Your task to perform on an android device: Open battery settings Image 0: 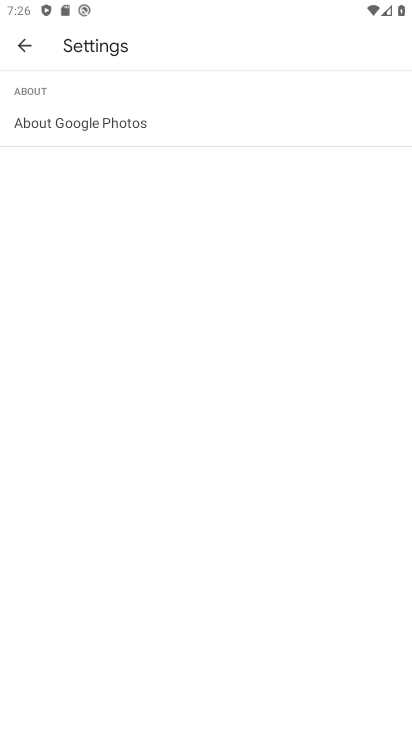
Step 0: press home button
Your task to perform on an android device: Open battery settings Image 1: 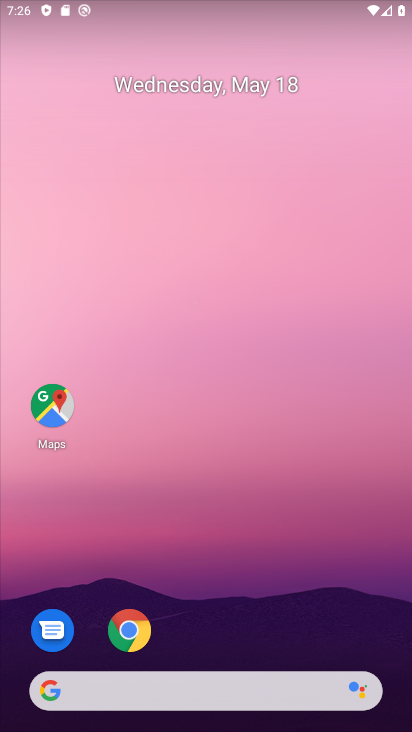
Step 1: drag from (264, 516) to (167, 91)
Your task to perform on an android device: Open battery settings Image 2: 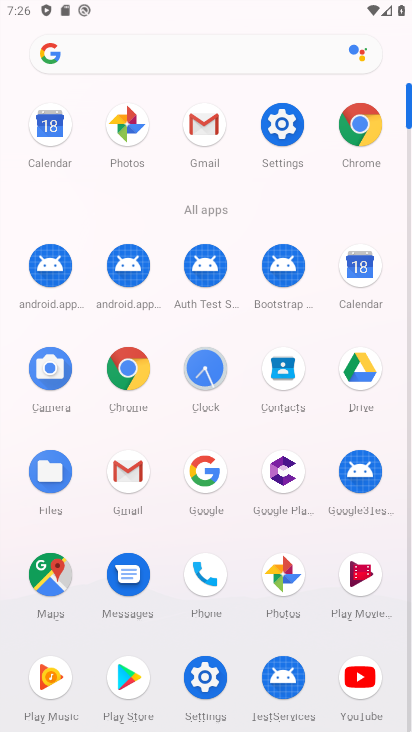
Step 2: click (279, 125)
Your task to perform on an android device: Open battery settings Image 3: 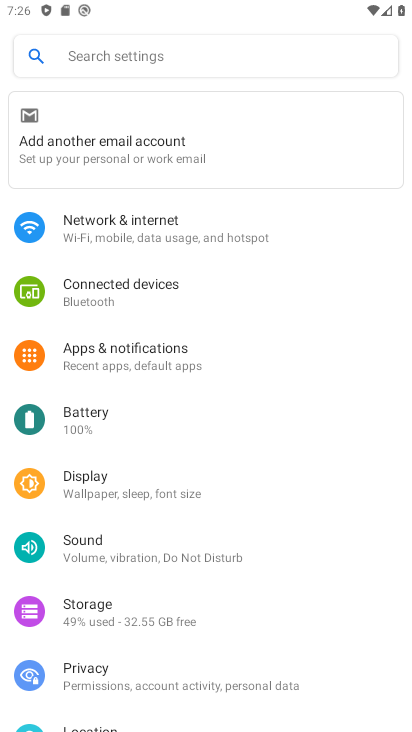
Step 3: click (91, 408)
Your task to perform on an android device: Open battery settings Image 4: 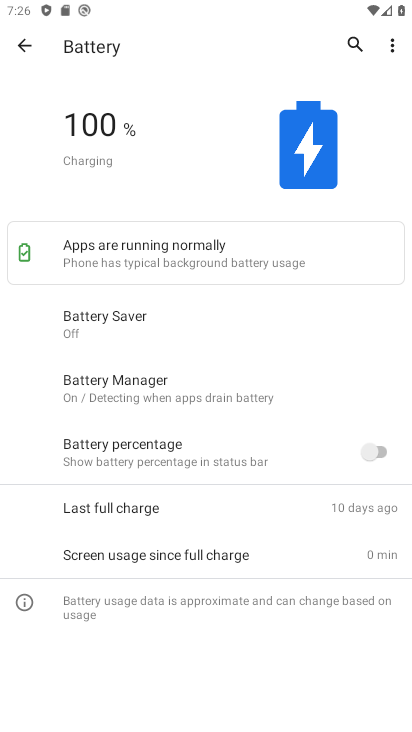
Step 4: task complete